Your task to perform on an android device: turn off wifi Image 0: 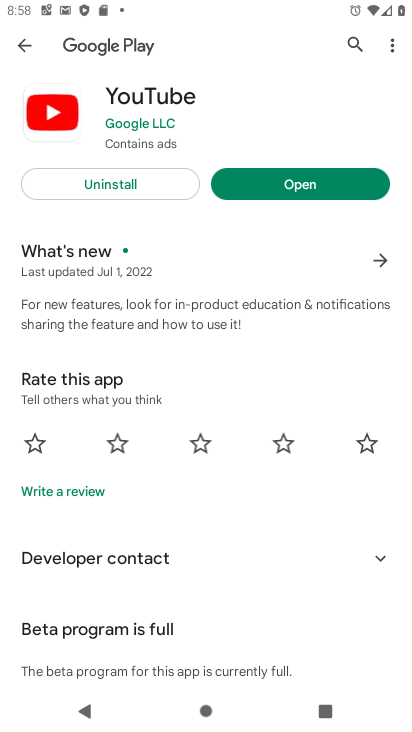
Step 0: press home button
Your task to perform on an android device: turn off wifi Image 1: 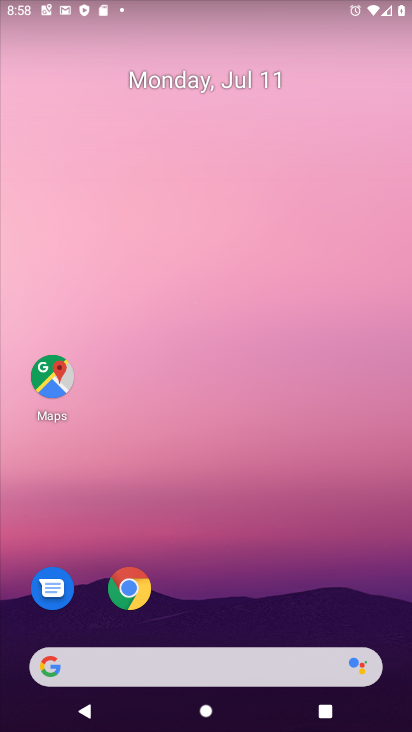
Step 1: drag from (170, 661) to (332, 122)
Your task to perform on an android device: turn off wifi Image 2: 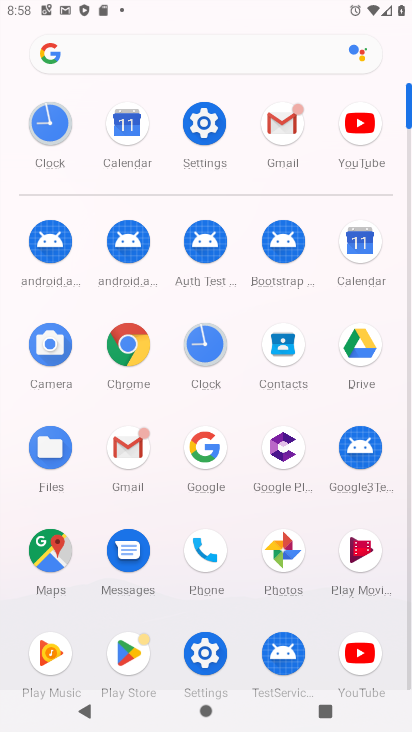
Step 2: click (215, 125)
Your task to perform on an android device: turn off wifi Image 3: 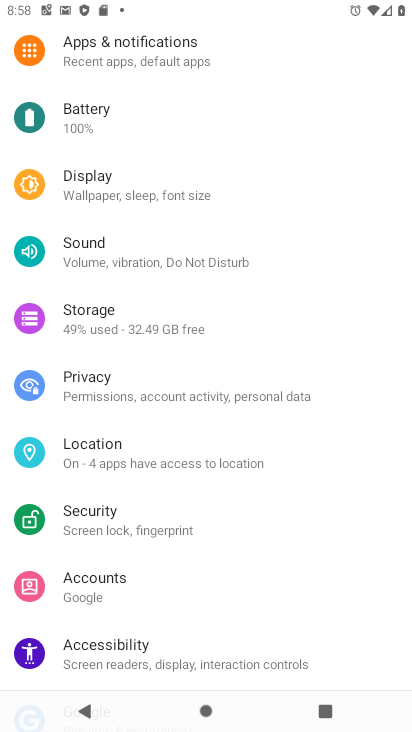
Step 3: drag from (323, 104) to (266, 601)
Your task to perform on an android device: turn off wifi Image 4: 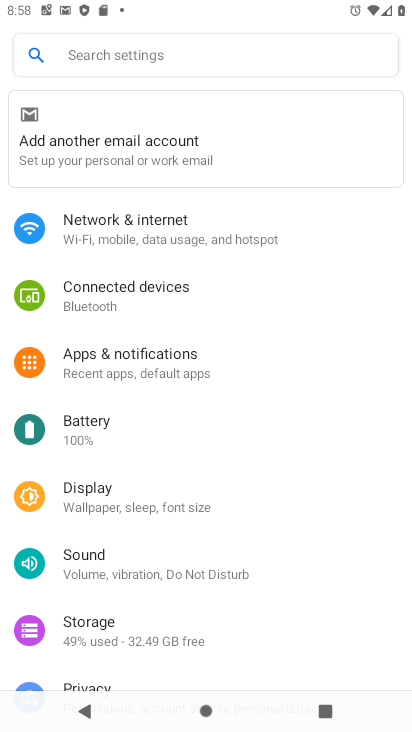
Step 4: click (180, 223)
Your task to perform on an android device: turn off wifi Image 5: 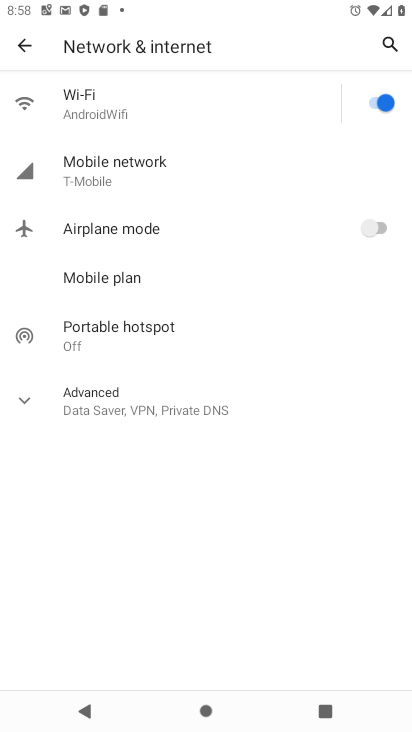
Step 5: click (377, 101)
Your task to perform on an android device: turn off wifi Image 6: 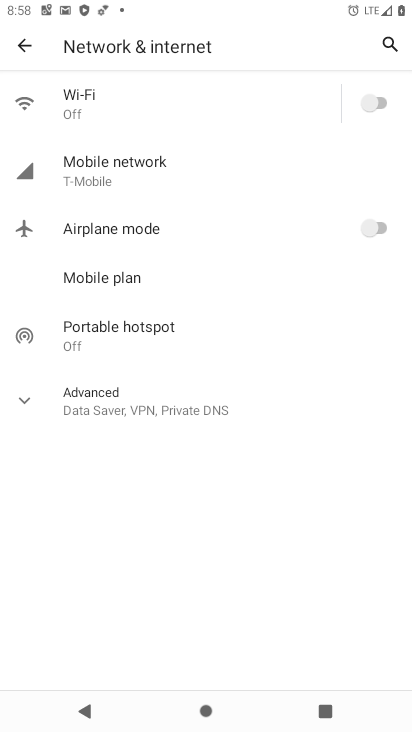
Step 6: task complete